Your task to perform on an android device: Open the phone app and click the voicemail tab. Image 0: 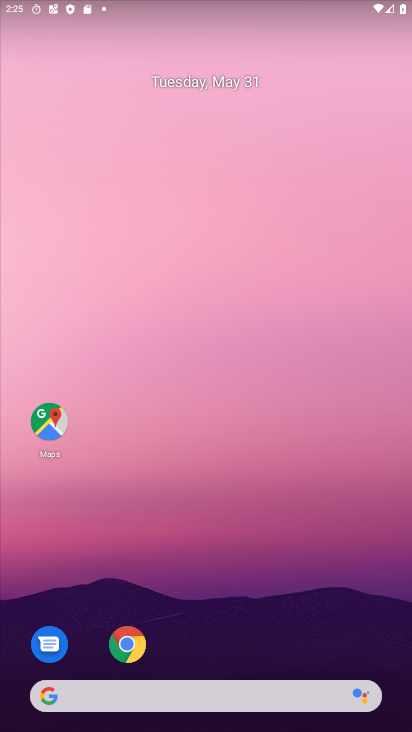
Step 0: drag from (396, 691) to (386, 63)
Your task to perform on an android device: Open the phone app and click the voicemail tab. Image 1: 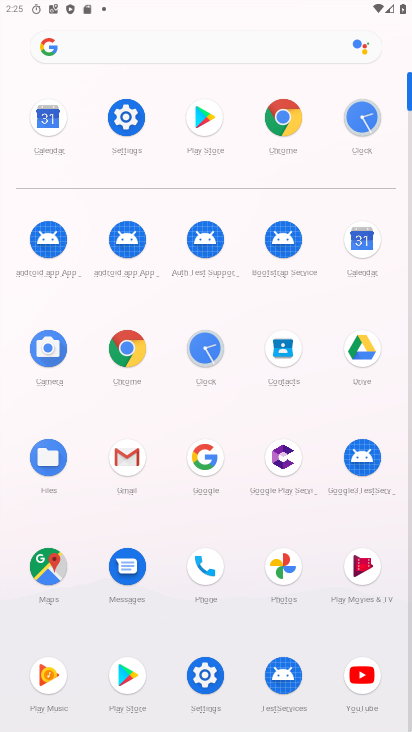
Step 1: click (205, 566)
Your task to perform on an android device: Open the phone app and click the voicemail tab. Image 2: 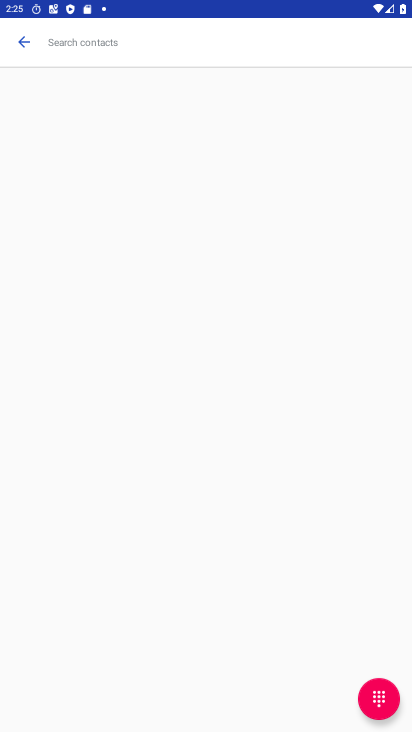
Step 2: click (20, 42)
Your task to perform on an android device: Open the phone app and click the voicemail tab. Image 3: 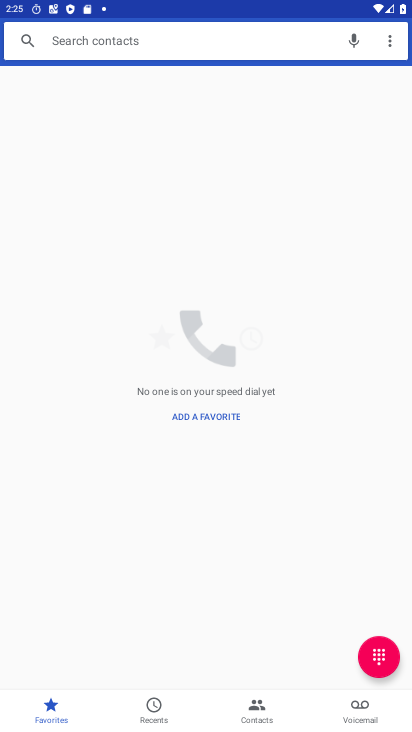
Step 3: click (359, 699)
Your task to perform on an android device: Open the phone app and click the voicemail tab. Image 4: 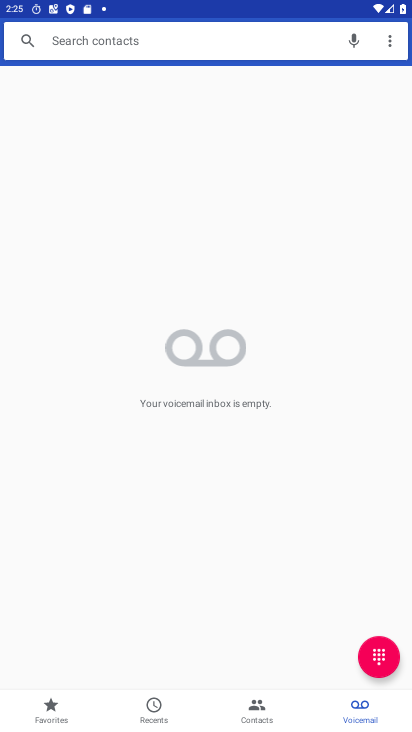
Step 4: task complete